Your task to perform on an android device: set the stopwatch Image 0: 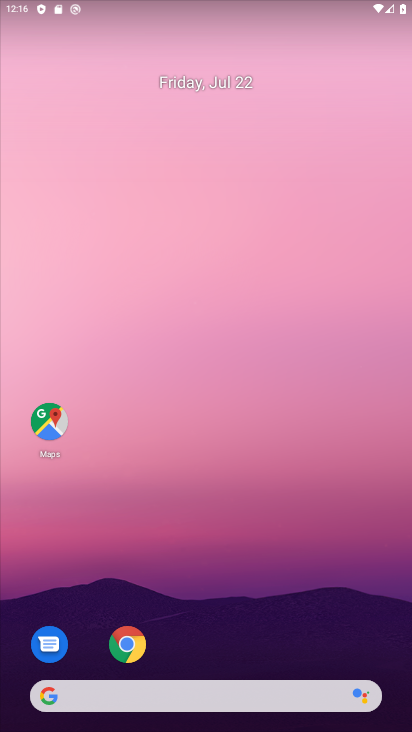
Step 0: drag from (240, 378) to (241, 226)
Your task to perform on an android device: set the stopwatch Image 1: 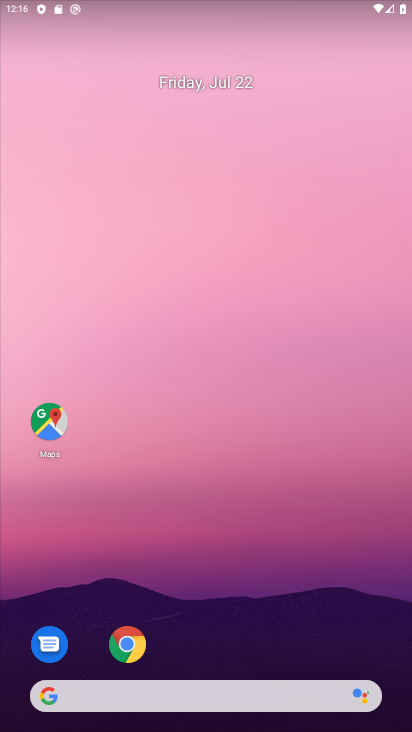
Step 1: drag from (207, 648) to (218, 187)
Your task to perform on an android device: set the stopwatch Image 2: 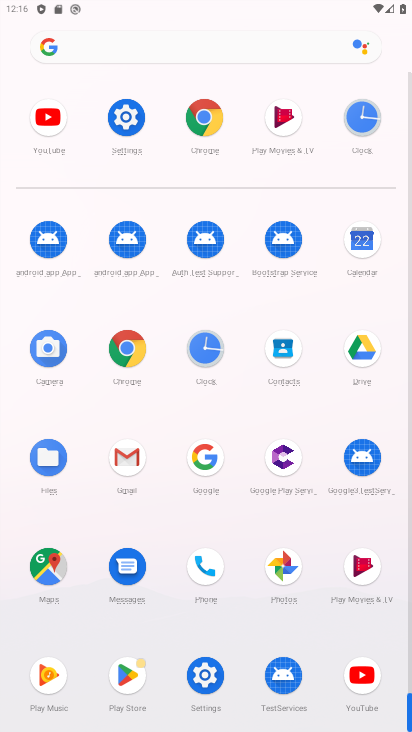
Step 2: click (205, 362)
Your task to perform on an android device: set the stopwatch Image 3: 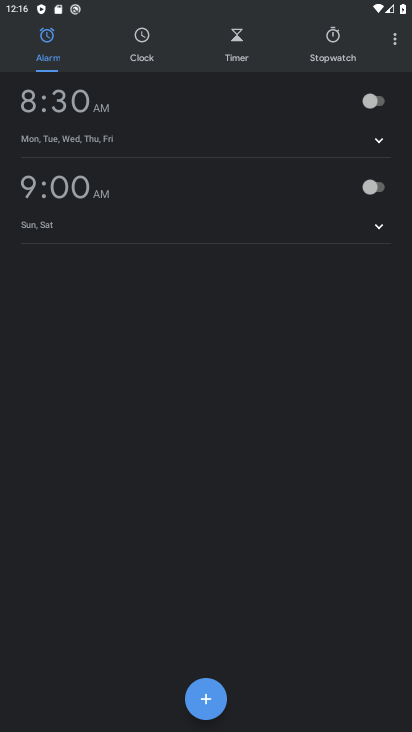
Step 3: click (351, 63)
Your task to perform on an android device: set the stopwatch Image 4: 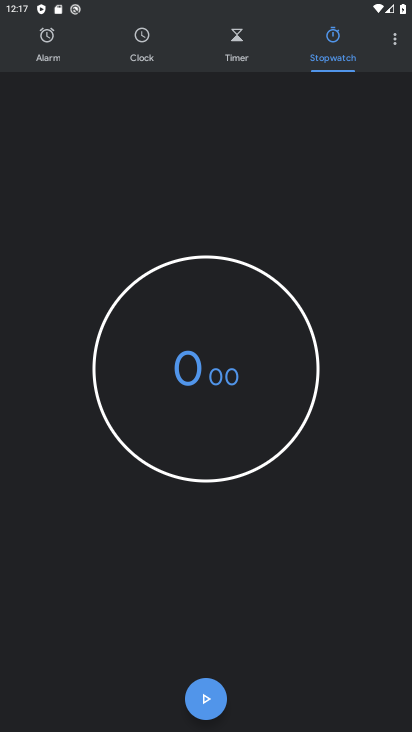
Step 4: click (211, 712)
Your task to perform on an android device: set the stopwatch Image 5: 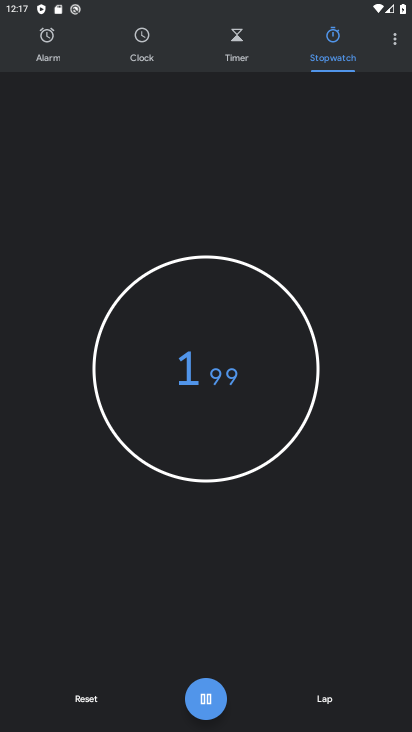
Step 5: task complete